Your task to perform on an android device: delete the emails in spam in the gmail app Image 0: 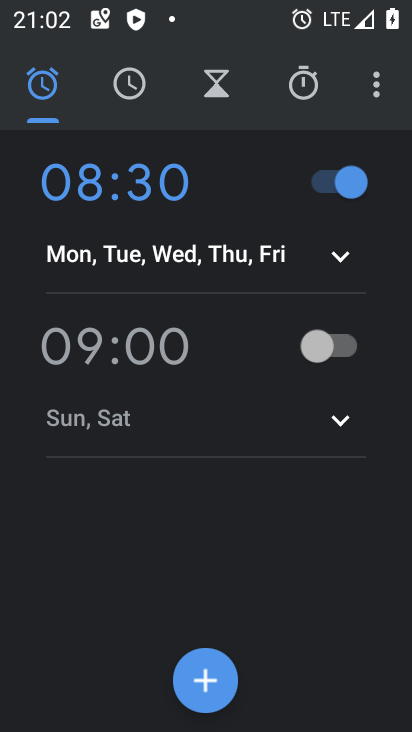
Step 0: press home button
Your task to perform on an android device: delete the emails in spam in the gmail app Image 1: 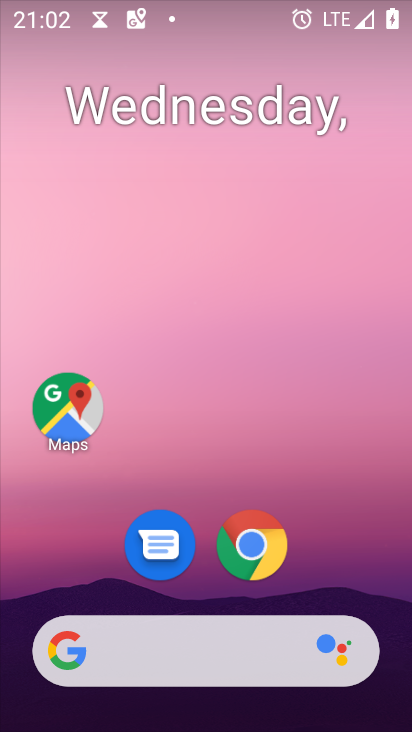
Step 1: drag from (136, 643) to (269, 180)
Your task to perform on an android device: delete the emails in spam in the gmail app Image 2: 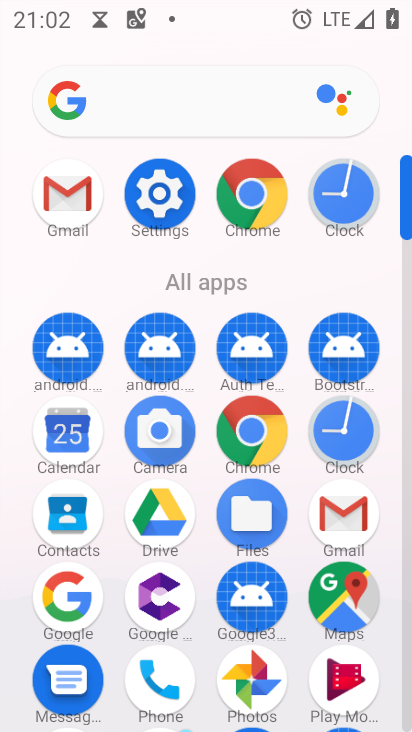
Step 2: click (80, 204)
Your task to perform on an android device: delete the emails in spam in the gmail app Image 3: 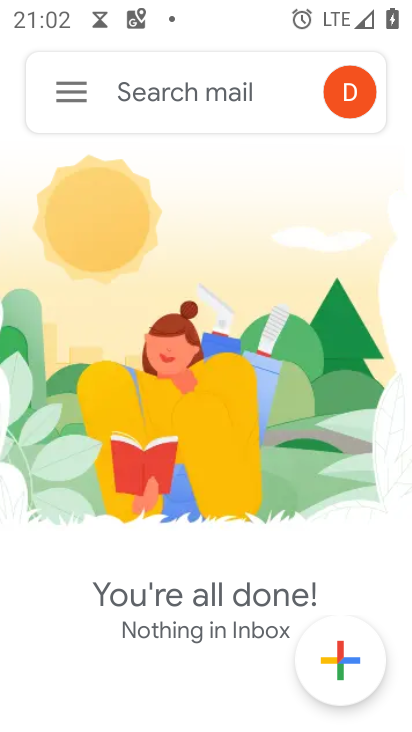
Step 3: click (63, 93)
Your task to perform on an android device: delete the emails in spam in the gmail app Image 4: 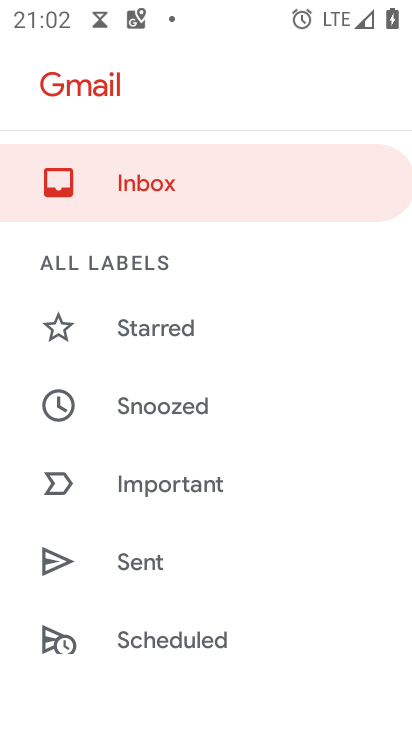
Step 4: drag from (257, 626) to (267, 292)
Your task to perform on an android device: delete the emails in spam in the gmail app Image 5: 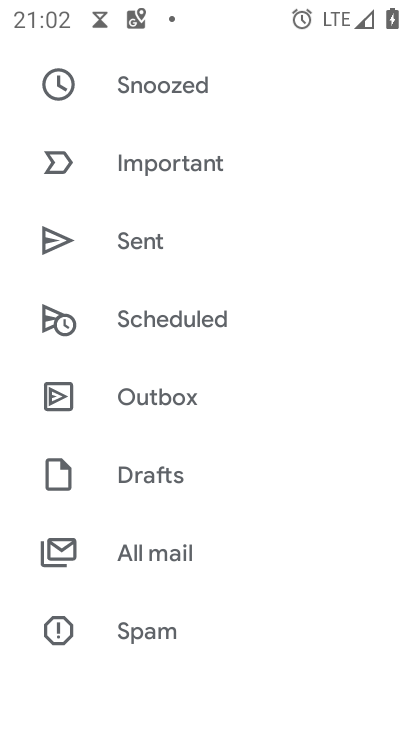
Step 5: click (172, 630)
Your task to perform on an android device: delete the emails in spam in the gmail app Image 6: 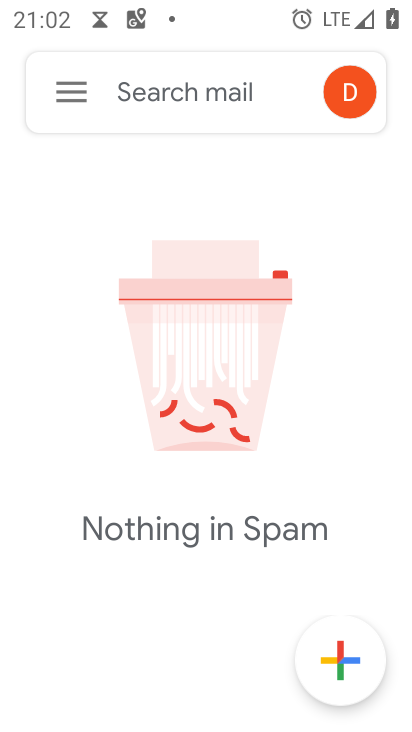
Step 6: task complete